Your task to perform on an android device: toggle javascript in the chrome app Image 0: 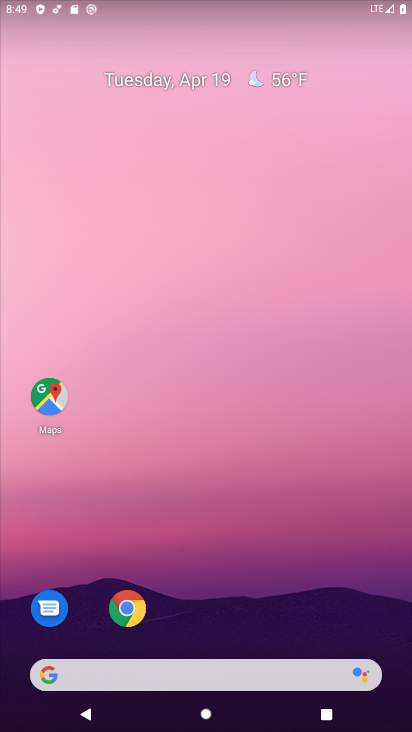
Step 0: drag from (211, 414) to (281, 122)
Your task to perform on an android device: toggle javascript in the chrome app Image 1: 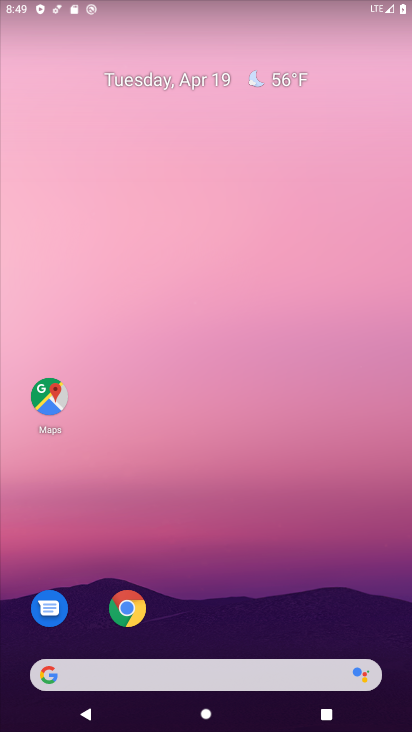
Step 1: drag from (181, 642) to (298, 0)
Your task to perform on an android device: toggle javascript in the chrome app Image 2: 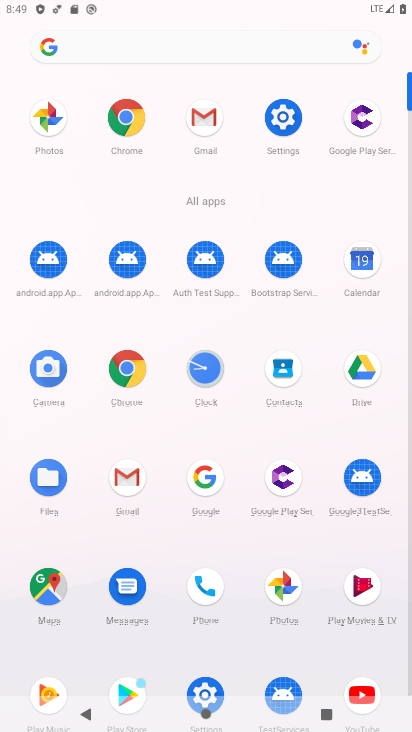
Step 2: click (119, 124)
Your task to perform on an android device: toggle javascript in the chrome app Image 3: 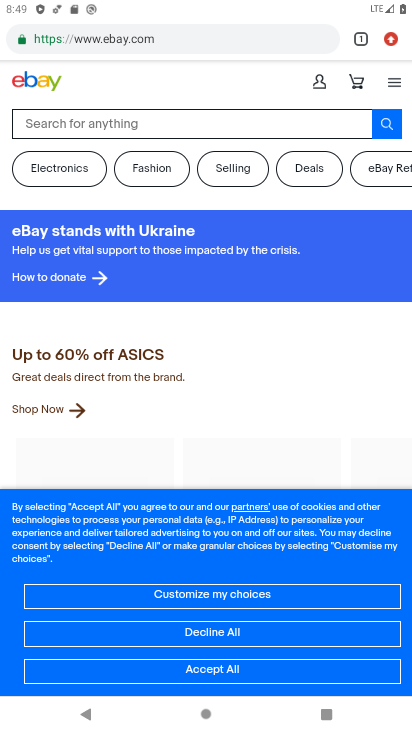
Step 3: drag from (390, 42) to (283, 514)
Your task to perform on an android device: toggle javascript in the chrome app Image 4: 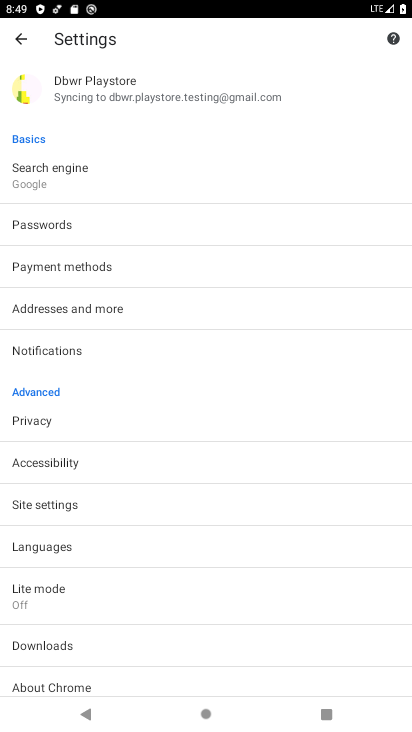
Step 4: drag from (116, 639) to (215, 414)
Your task to perform on an android device: toggle javascript in the chrome app Image 5: 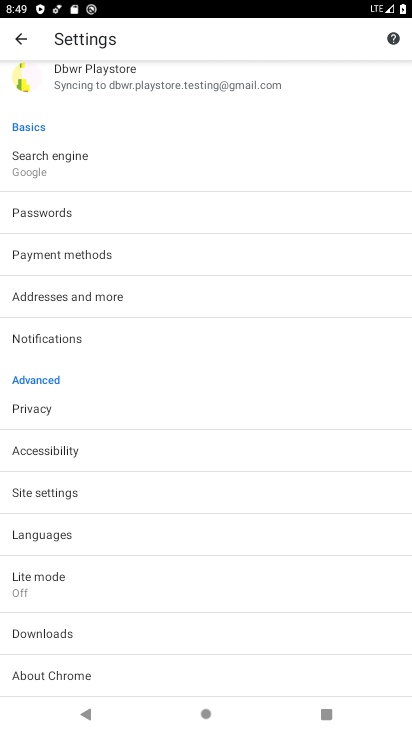
Step 5: click (109, 490)
Your task to perform on an android device: toggle javascript in the chrome app Image 6: 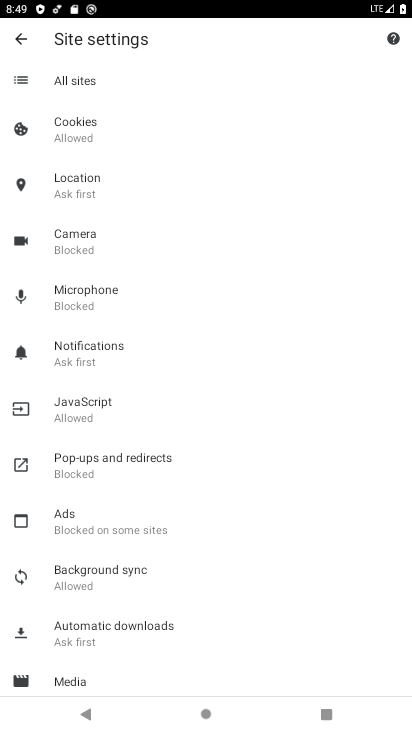
Step 6: click (140, 411)
Your task to perform on an android device: toggle javascript in the chrome app Image 7: 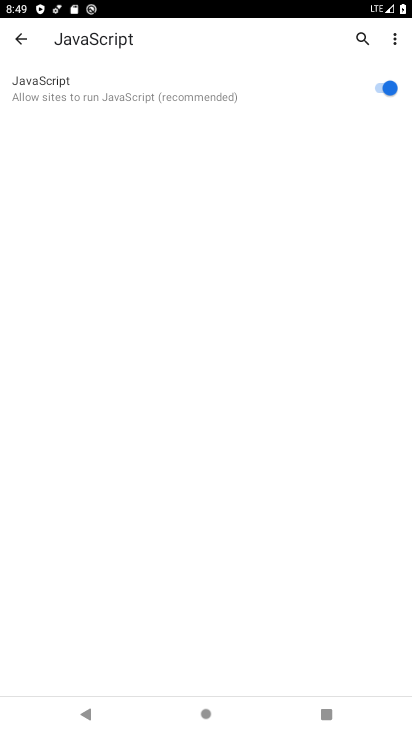
Step 7: click (381, 83)
Your task to perform on an android device: toggle javascript in the chrome app Image 8: 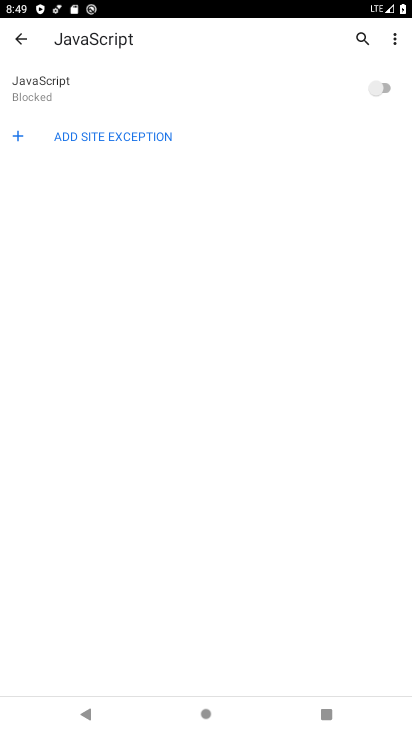
Step 8: task complete